Your task to perform on an android device: turn off data saver in the chrome app Image 0: 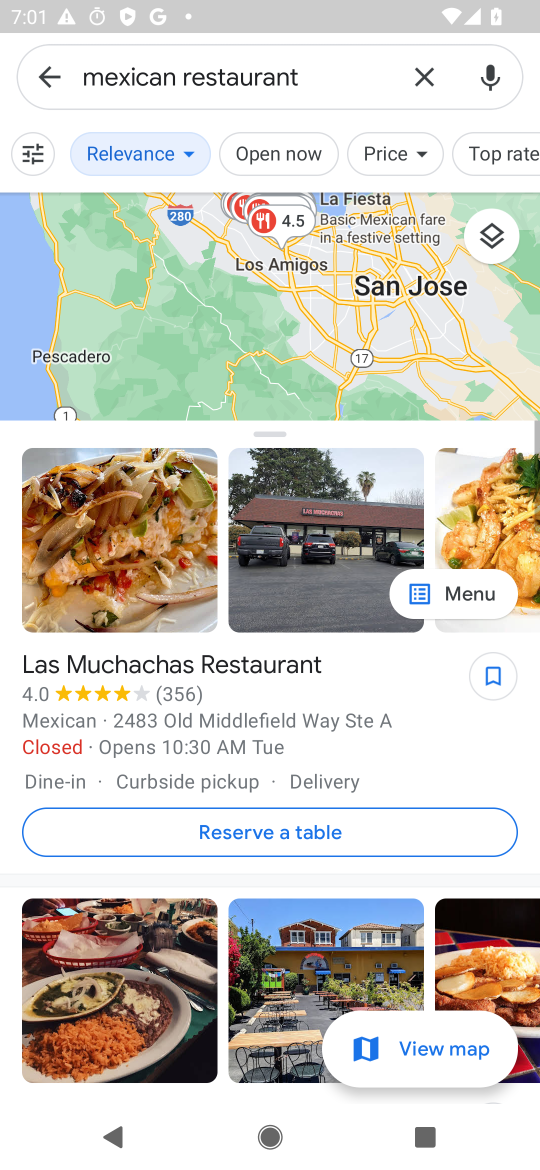
Step 0: press home button
Your task to perform on an android device: turn off data saver in the chrome app Image 1: 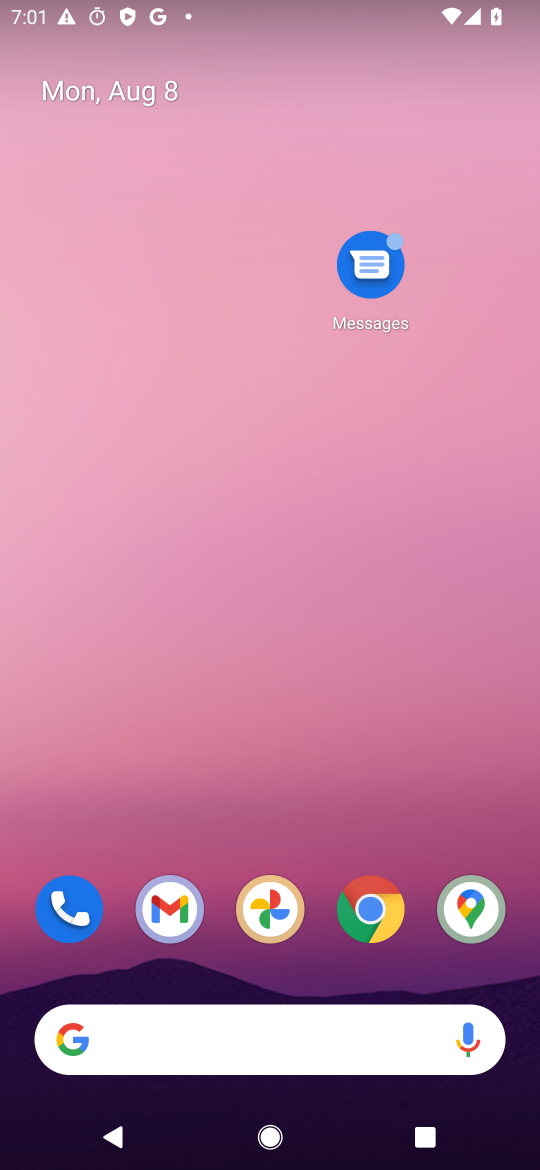
Step 1: drag from (227, 1035) to (368, 173)
Your task to perform on an android device: turn off data saver in the chrome app Image 2: 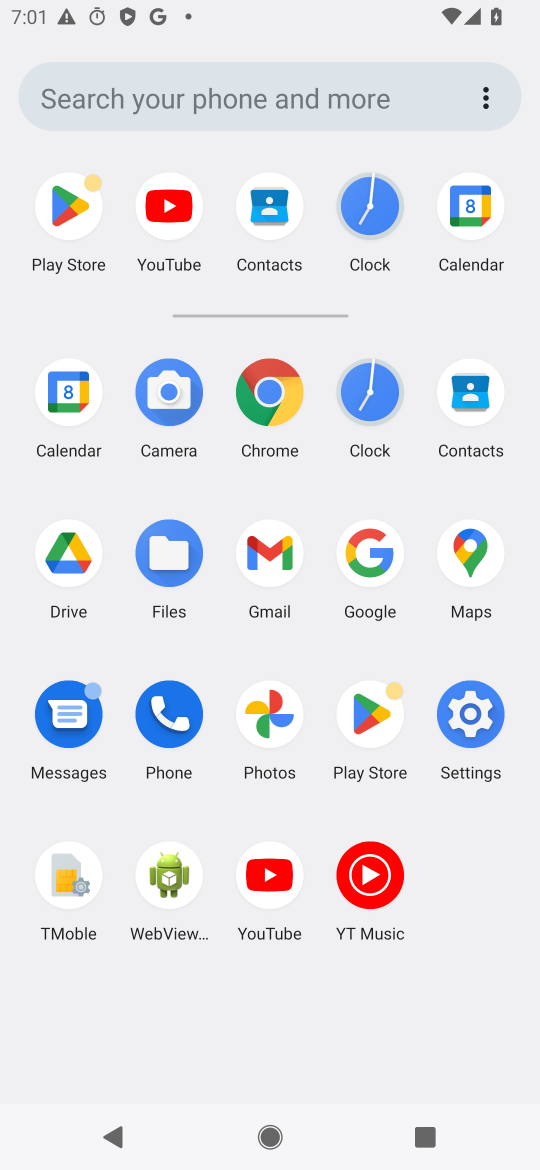
Step 2: click (264, 393)
Your task to perform on an android device: turn off data saver in the chrome app Image 3: 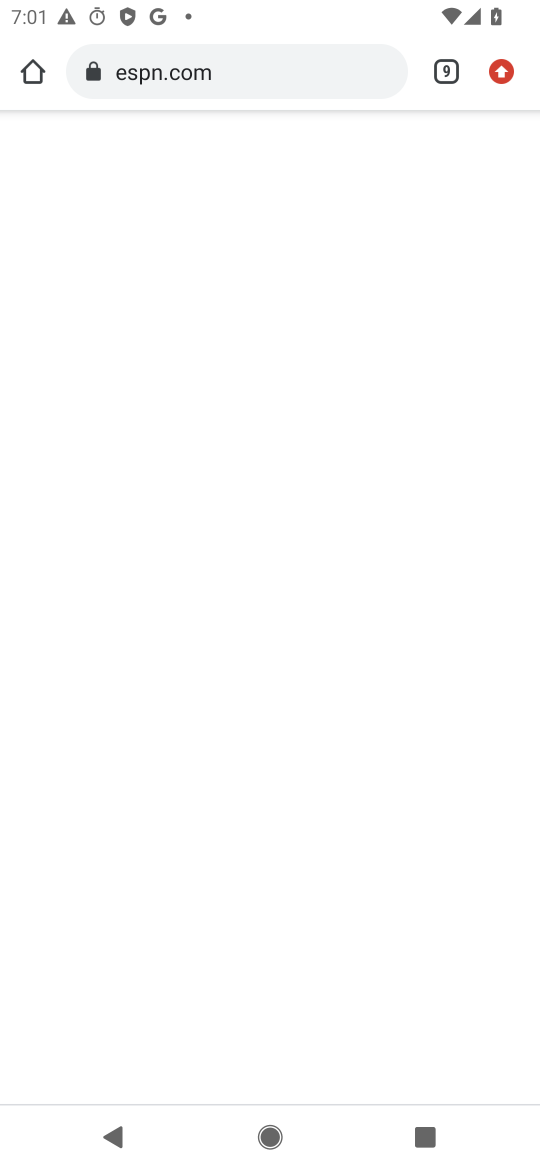
Step 3: drag from (507, 73) to (351, 1007)
Your task to perform on an android device: turn off data saver in the chrome app Image 4: 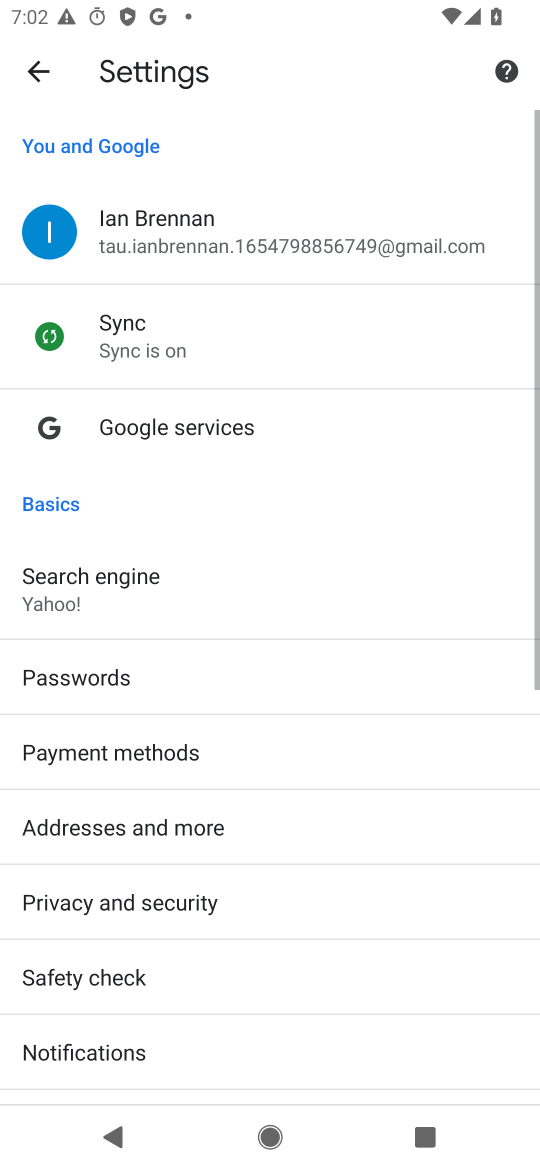
Step 4: drag from (352, 914) to (524, 183)
Your task to perform on an android device: turn off data saver in the chrome app Image 5: 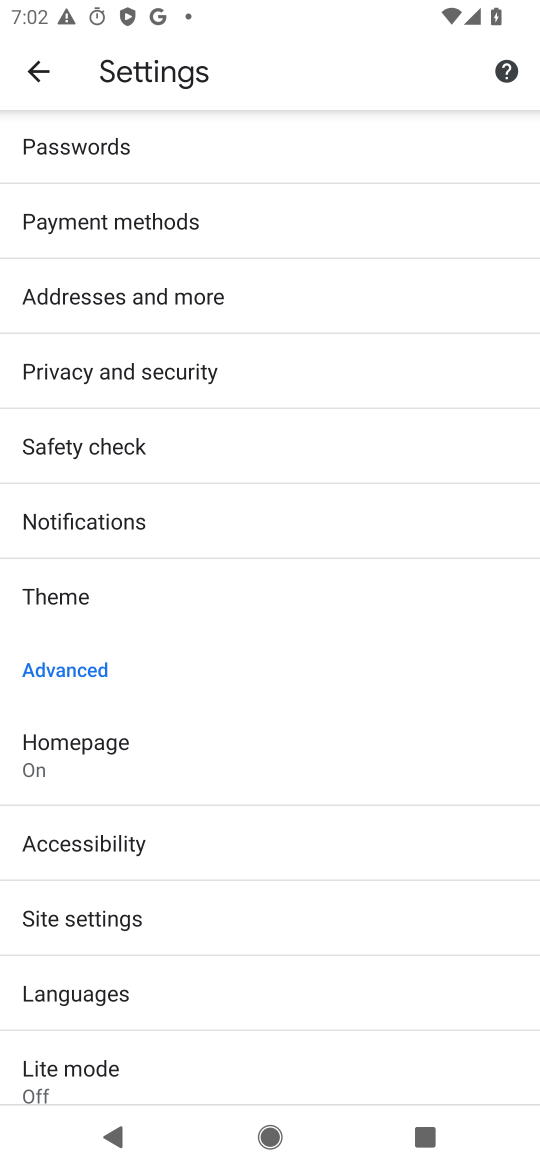
Step 5: click (99, 1064)
Your task to perform on an android device: turn off data saver in the chrome app Image 6: 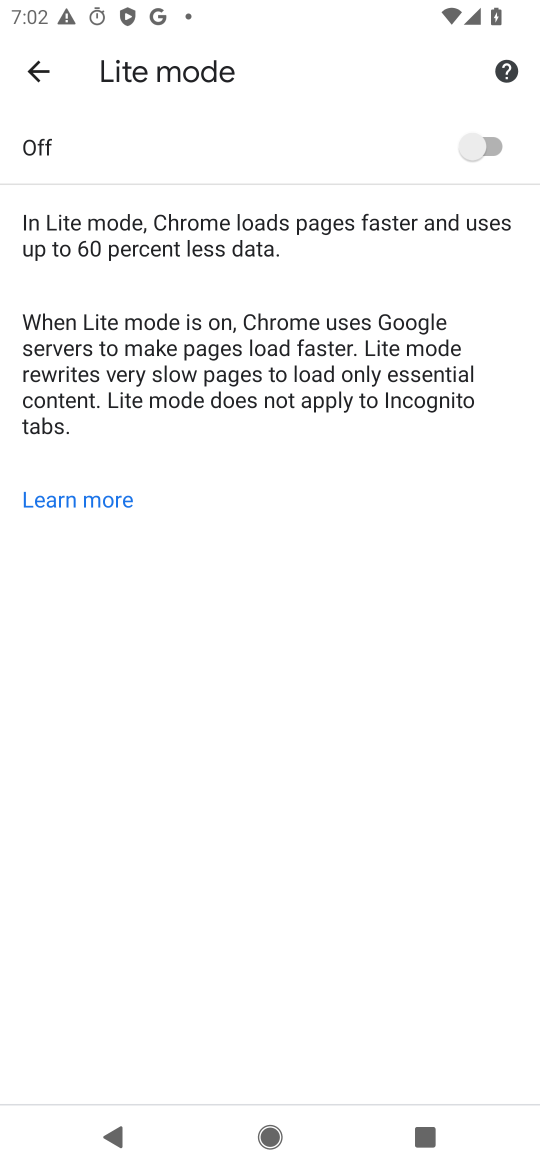
Step 6: task complete